Your task to perform on an android device: Open Google Chrome and click the shortcut for Amazon.com Image 0: 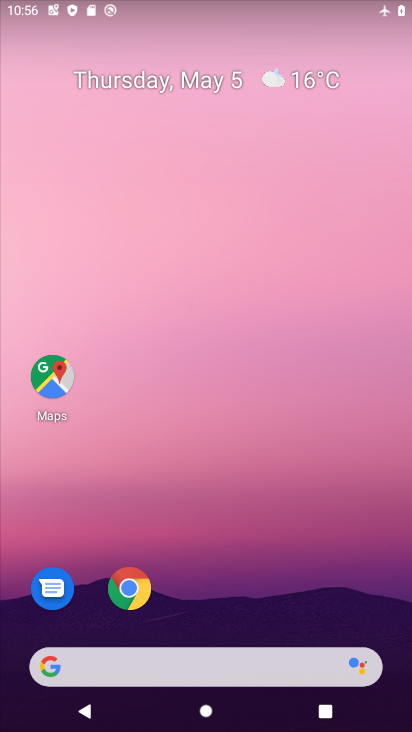
Step 0: click (138, 594)
Your task to perform on an android device: Open Google Chrome and click the shortcut for Amazon.com Image 1: 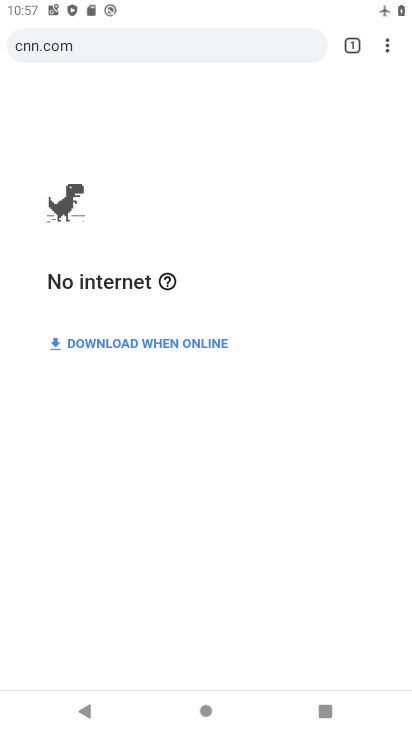
Step 1: click (351, 43)
Your task to perform on an android device: Open Google Chrome and click the shortcut for Amazon.com Image 2: 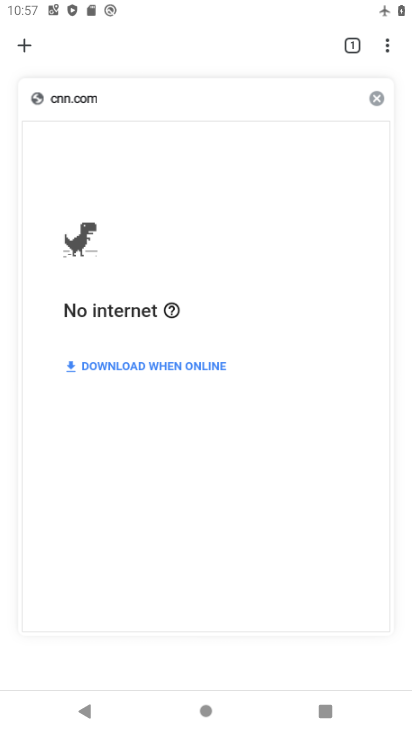
Step 2: click (21, 48)
Your task to perform on an android device: Open Google Chrome and click the shortcut for Amazon.com Image 3: 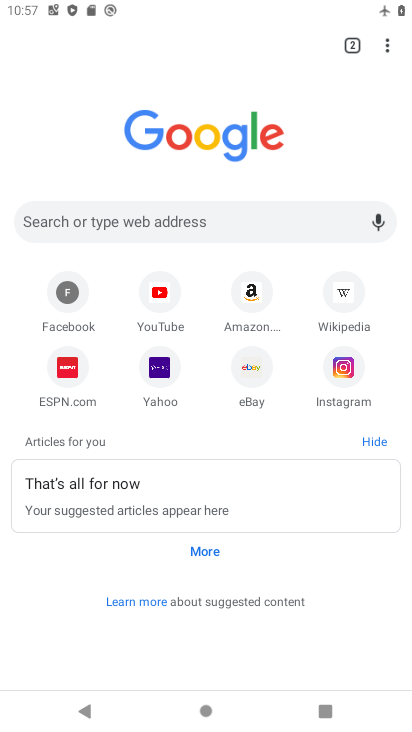
Step 3: click (264, 312)
Your task to perform on an android device: Open Google Chrome and click the shortcut for Amazon.com Image 4: 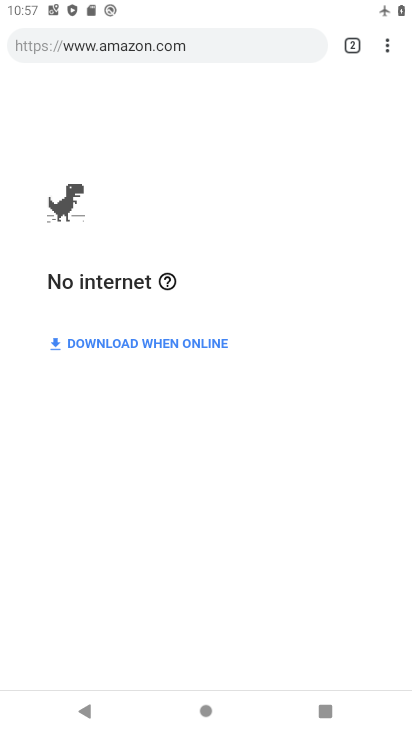
Step 4: task complete